Your task to perform on an android device: Open accessibility settings Image 0: 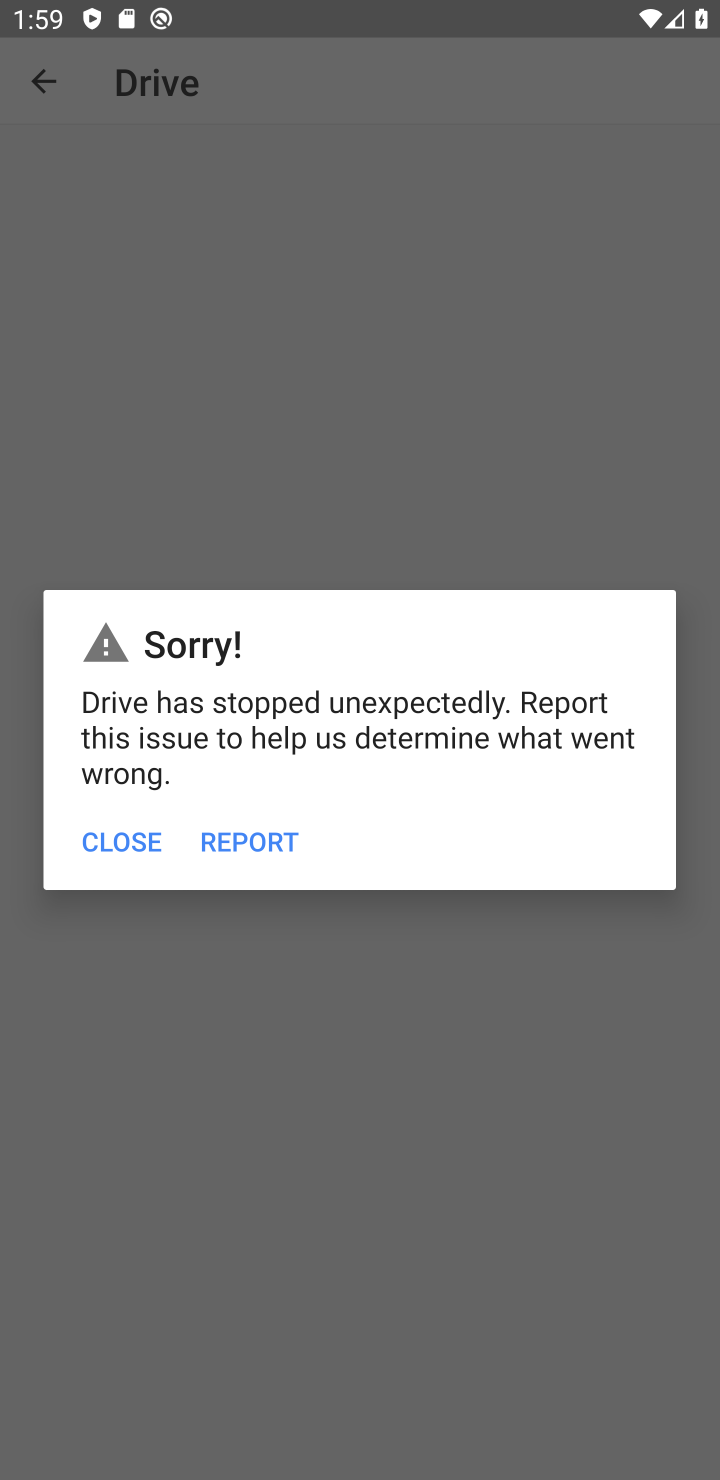
Step 0: press home button
Your task to perform on an android device: Open accessibility settings Image 1: 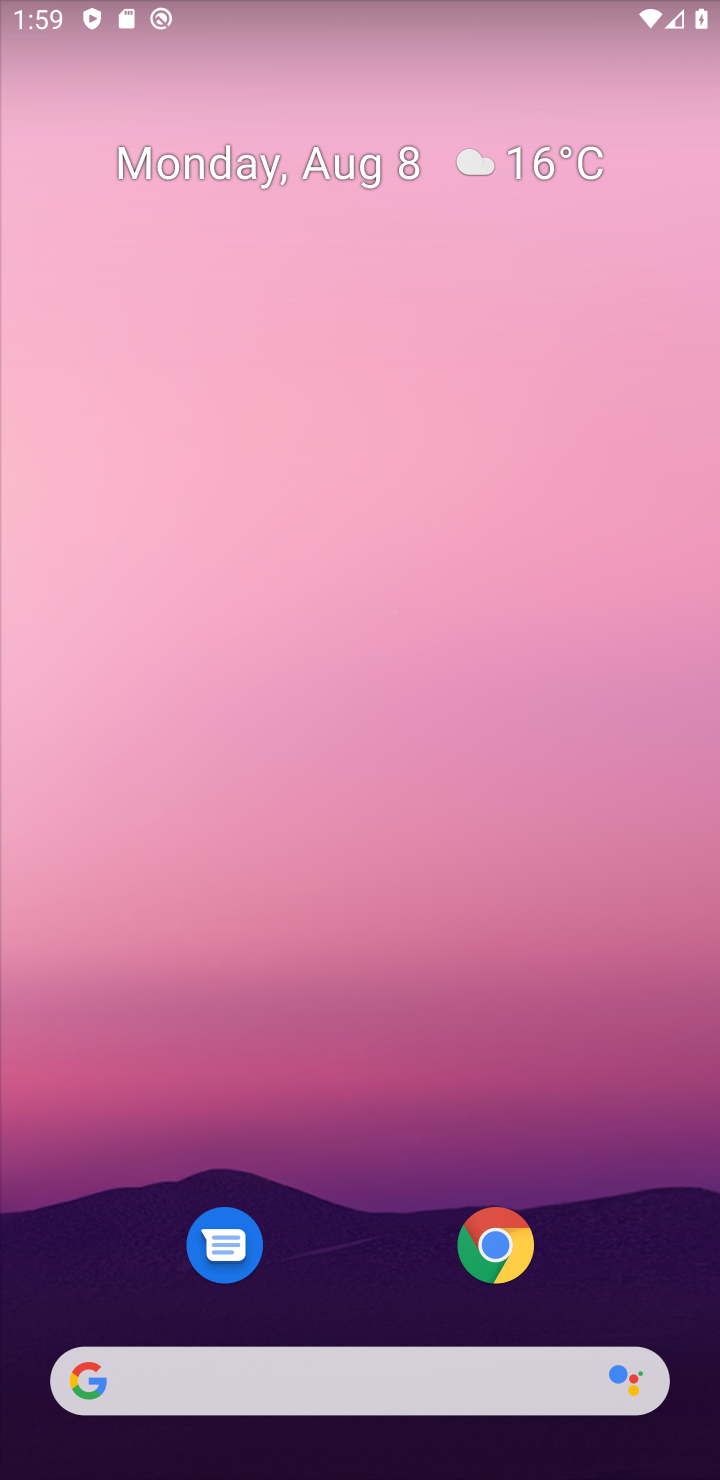
Step 1: drag from (356, 687) to (366, 301)
Your task to perform on an android device: Open accessibility settings Image 2: 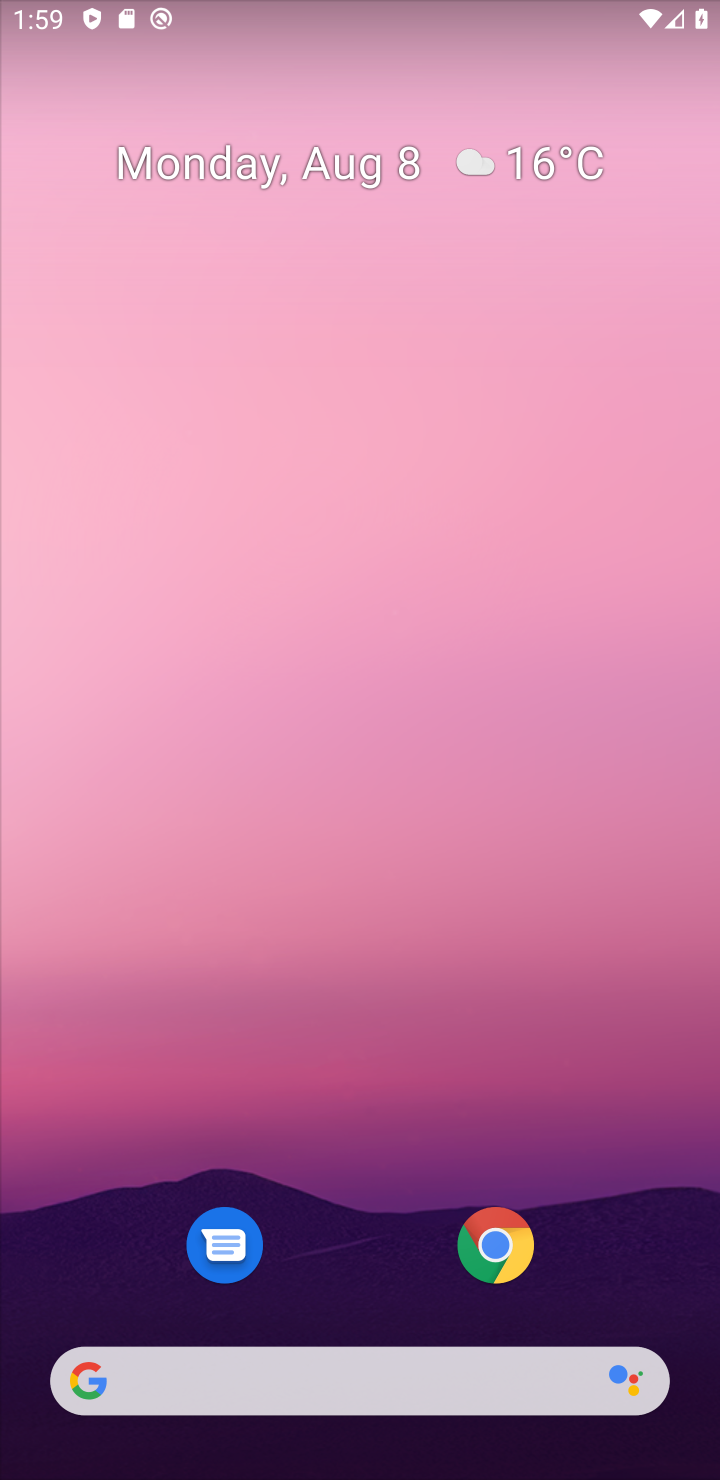
Step 2: drag from (362, 1128) to (255, 29)
Your task to perform on an android device: Open accessibility settings Image 3: 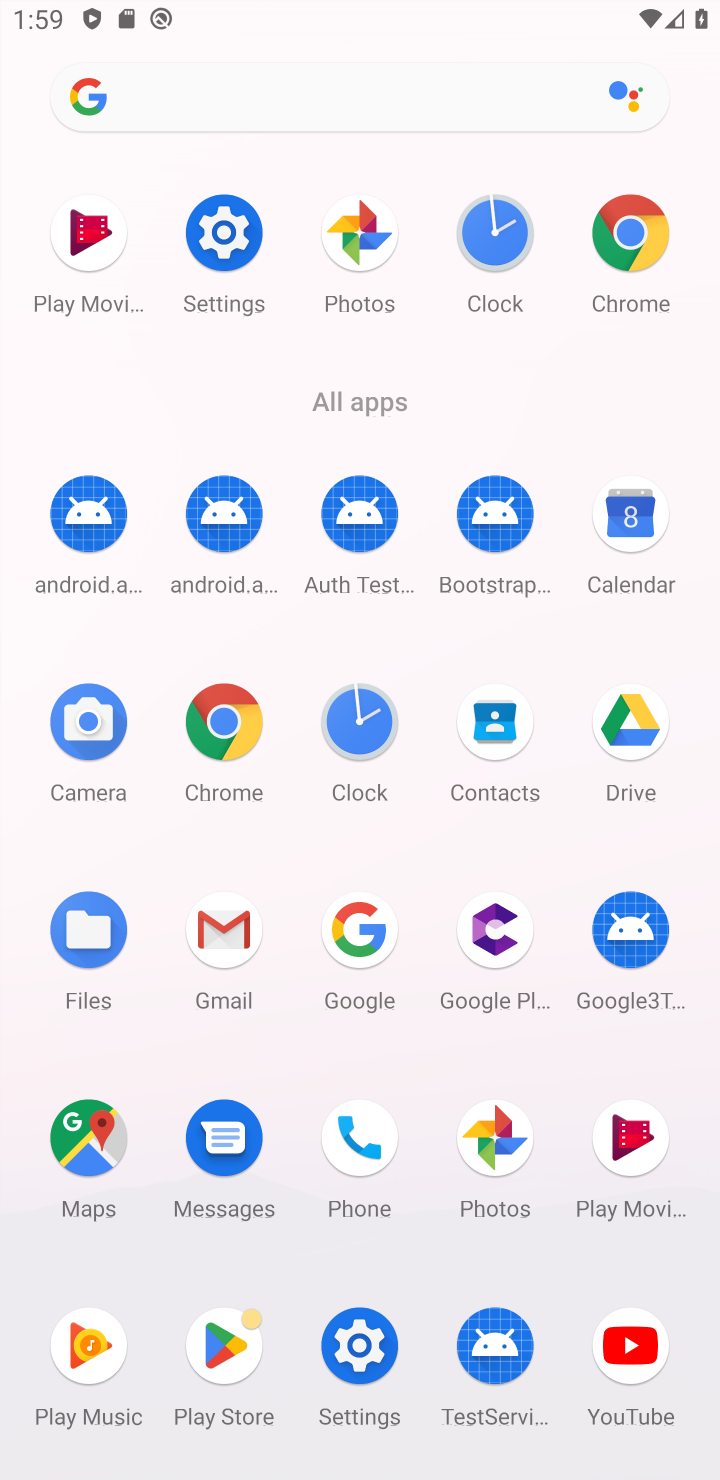
Step 3: click (229, 232)
Your task to perform on an android device: Open accessibility settings Image 4: 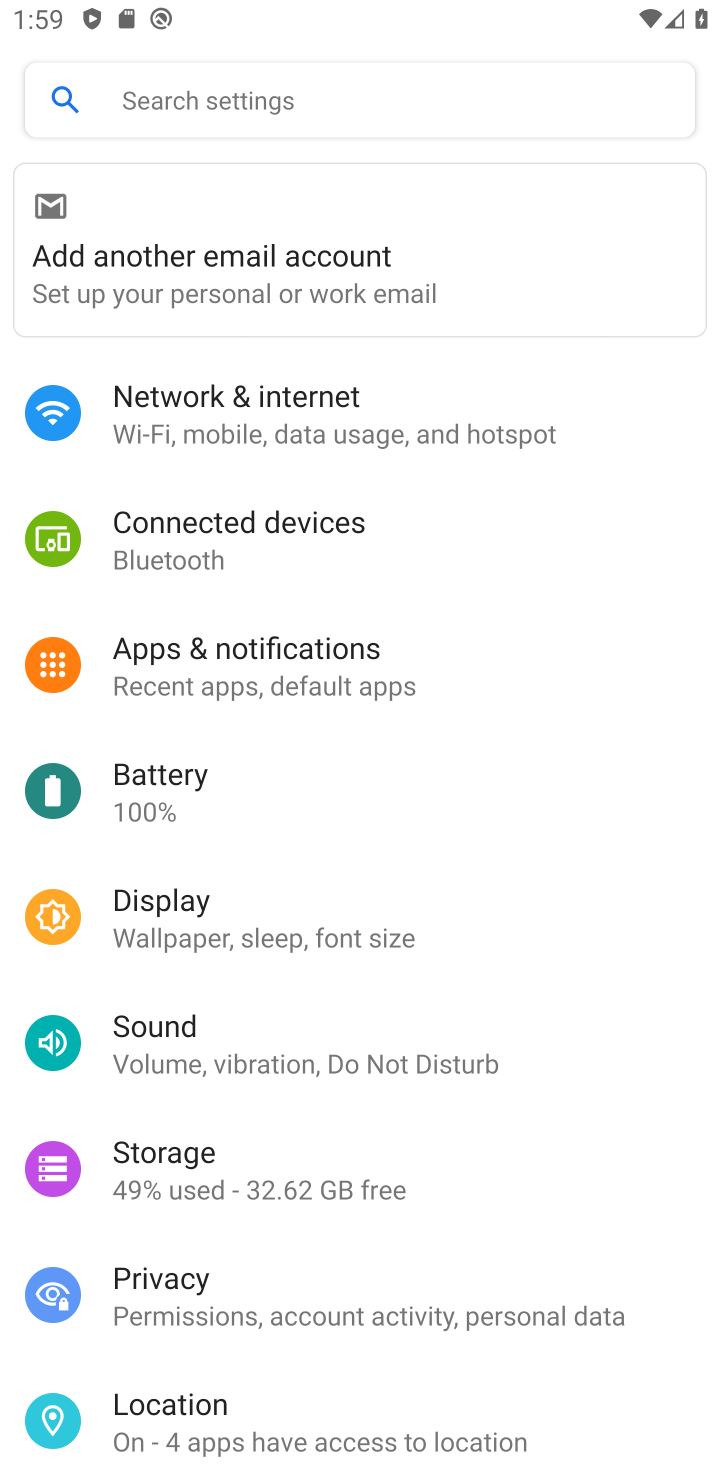
Step 4: drag from (420, 1236) to (382, 541)
Your task to perform on an android device: Open accessibility settings Image 5: 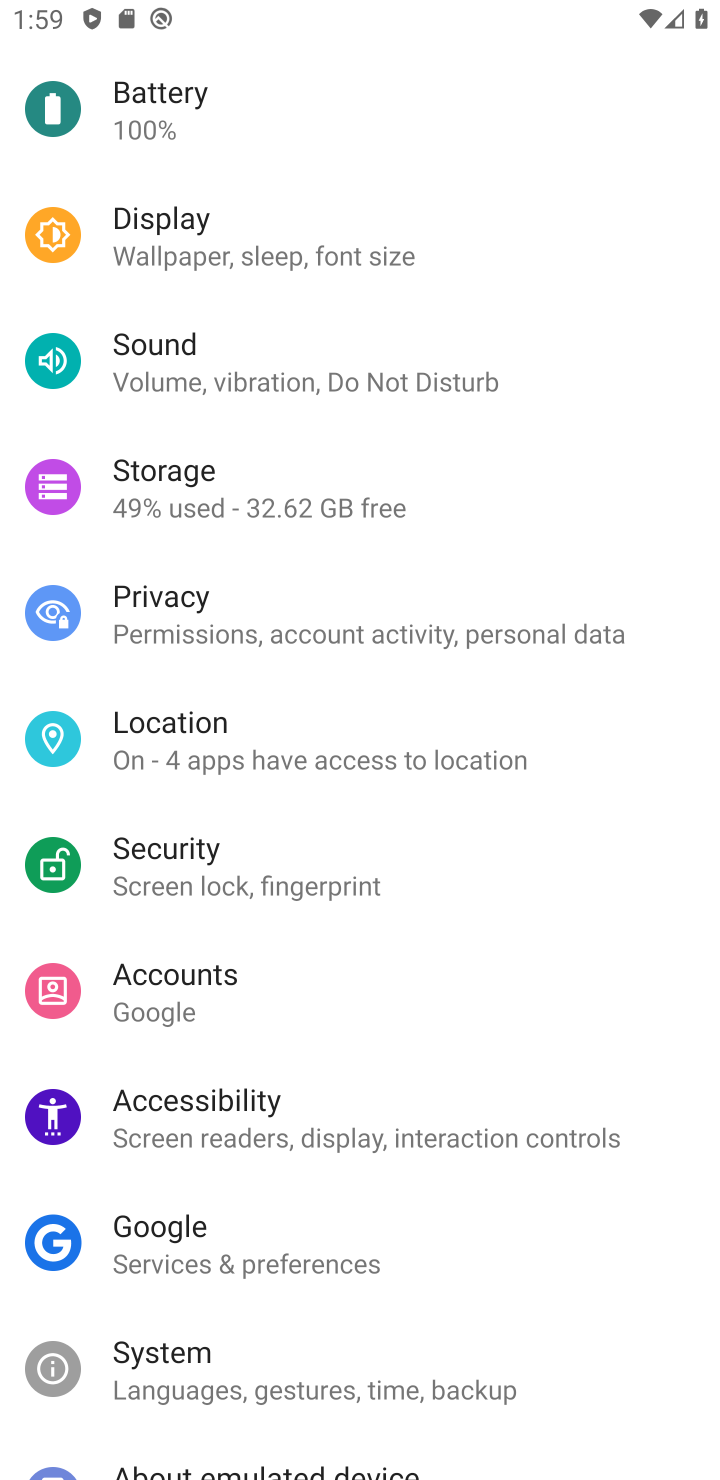
Step 5: drag from (396, 1199) to (449, 541)
Your task to perform on an android device: Open accessibility settings Image 6: 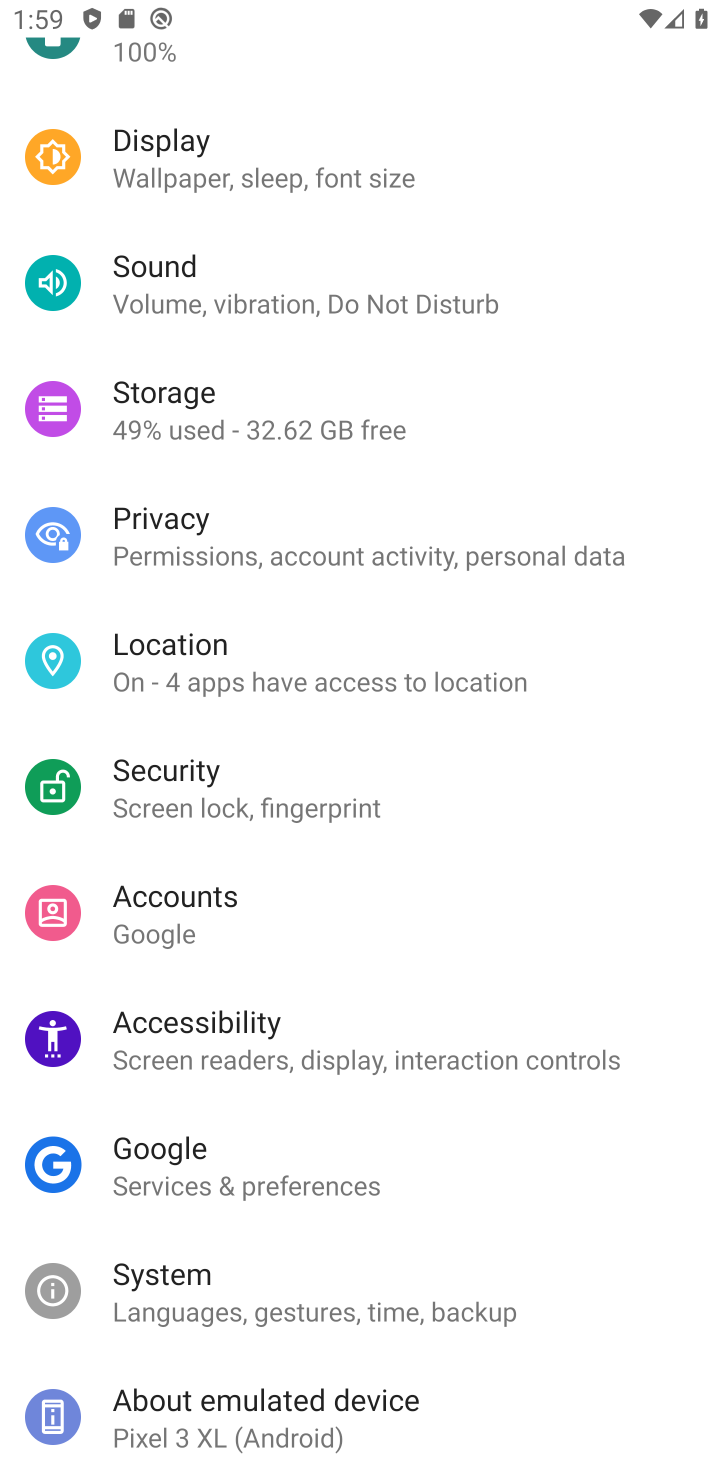
Step 6: click (192, 1015)
Your task to perform on an android device: Open accessibility settings Image 7: 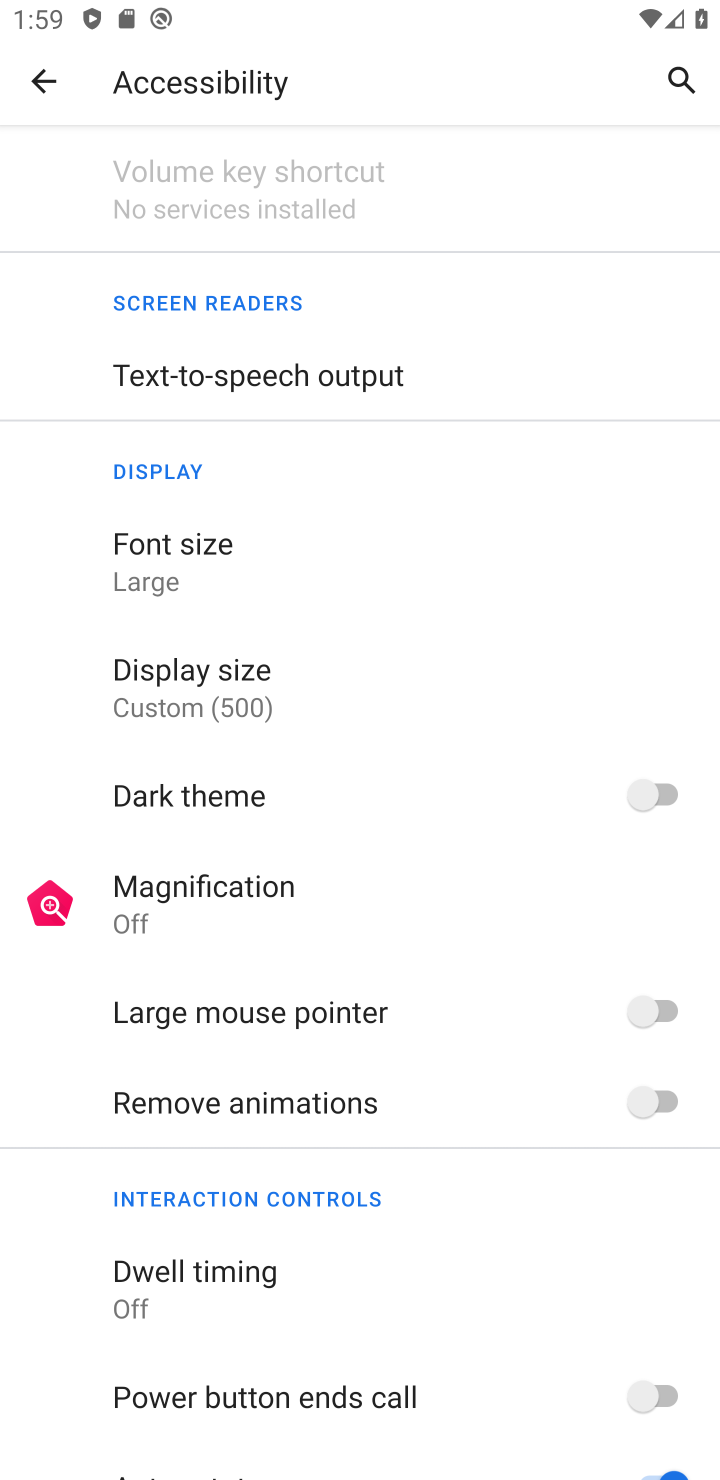
Step 7: task complete